Your task to perform on an android device: Show me productivity apps on the Play Store Image 0: 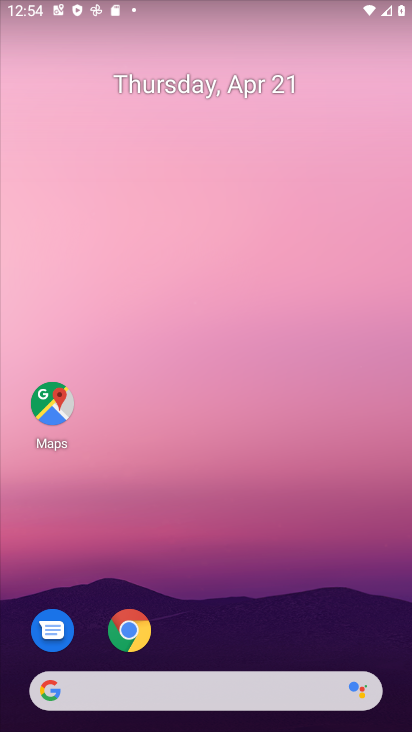
Step 0: drag from (239, 618) to (214, 1)
Your task to perform on an android device: Show me productivity apps on the Play Store Image 1: 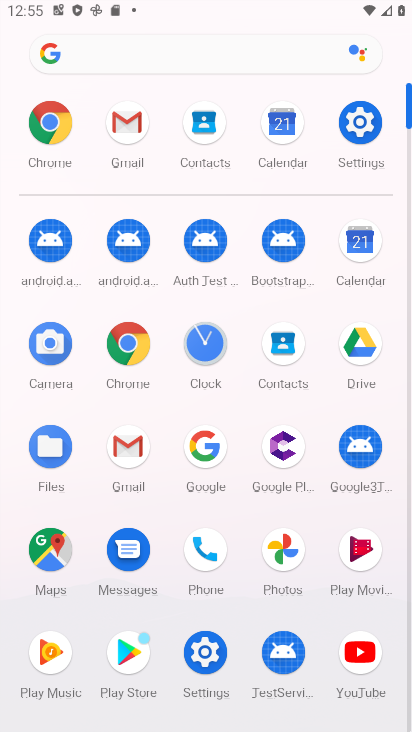
Step 1: click (127, 648)
Your task to perform on an android device: Show me productivity apps on the Play Store Image 2: 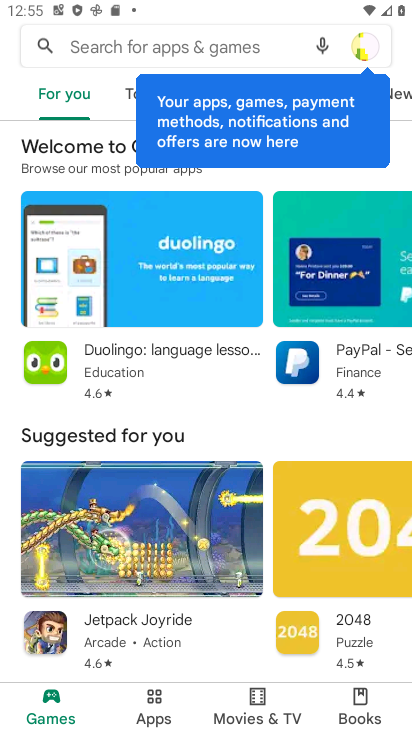
Step 2: click (277, 150)
Your task to perform on an android device: Show me productivity apps on the Play Store Image 3: 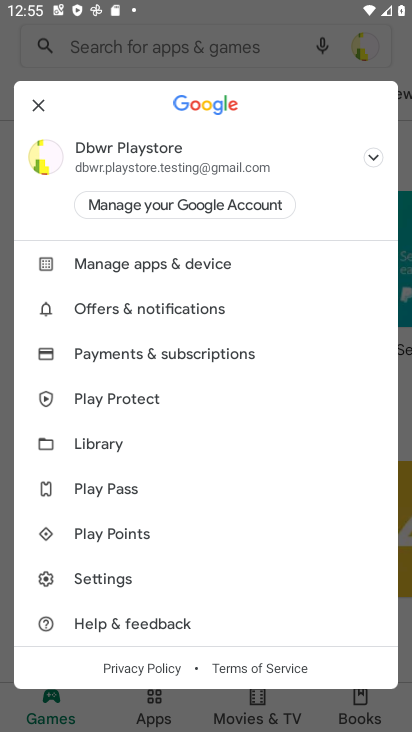
Step 3: click (42, 109)
Your task to perform on an android device: Show me productivity apps on the Play Store Image 4: 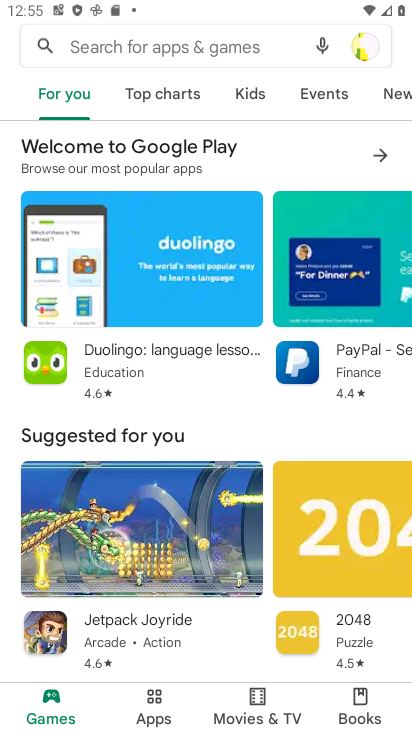
Step 4: click (172, 114)
Your task to perform on an android device: Show me productivity apps on the Play Store Image 5: 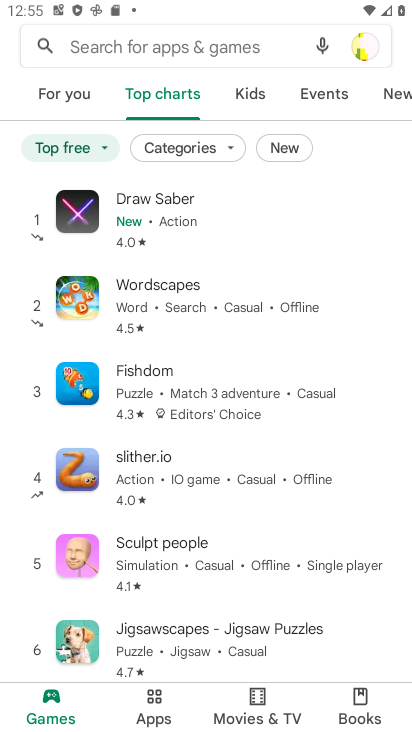
Step 5: click (134, 695)
Your task to perform on an android device: Show me productivity apps on the Play Store Image 6: 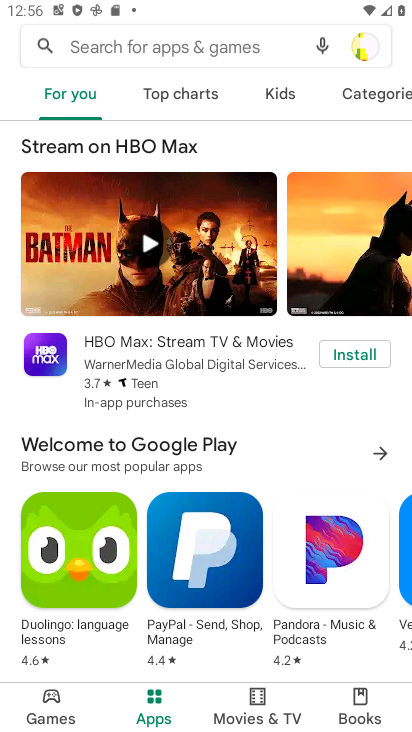
Step 6: click (150, 110)
Your task to perform on an android device: Show me productivity apps on the Play Store Image 7: 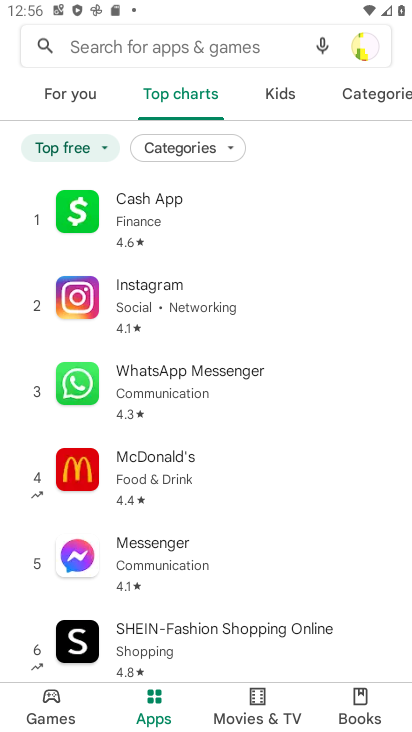
Step 7: click (183, 141)
Your task to perform on an android device: Show me productivity apps on the Play Store Image 8: 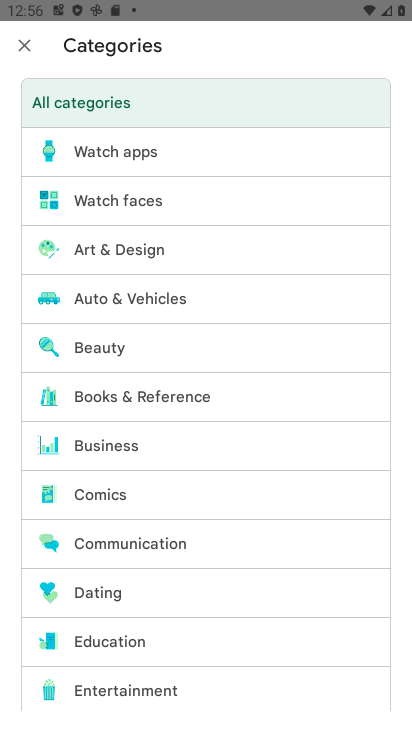
Step 8: drag from (149, 593) to (177, 241)
Your task to perform on an android device: Show me productivity apps on the Play Store Image 9: 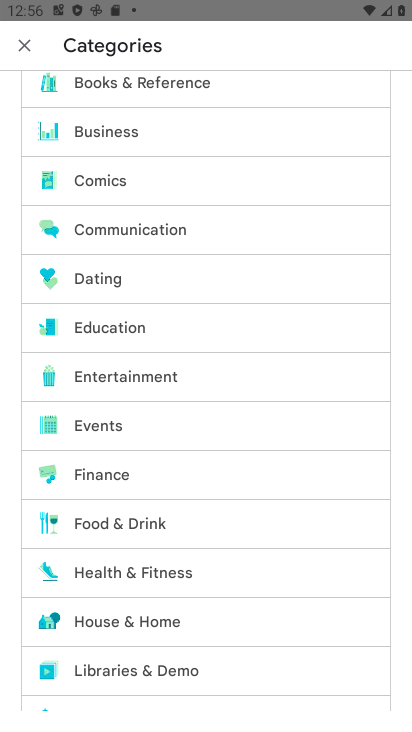
Step 9: drag from (187, 633) to (217, 211)
Your task to perform on an android device: Show me productivity apps on the Play Store Image 10: 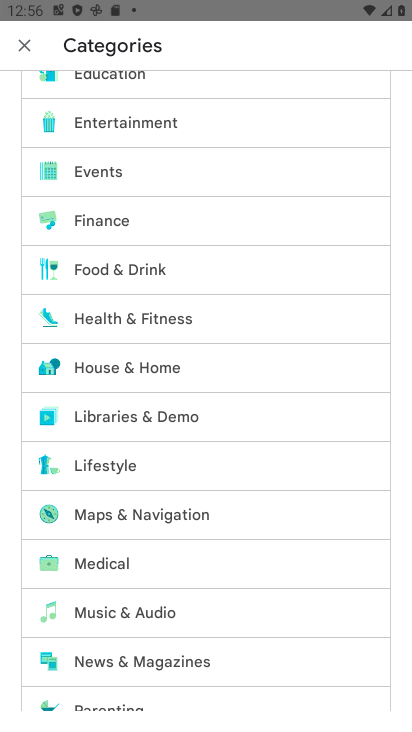
Step 10: drag from (215, 544) to (228, 112)
Your task to perform on an android device: Show me productivity apps on the Play Store Image 11: 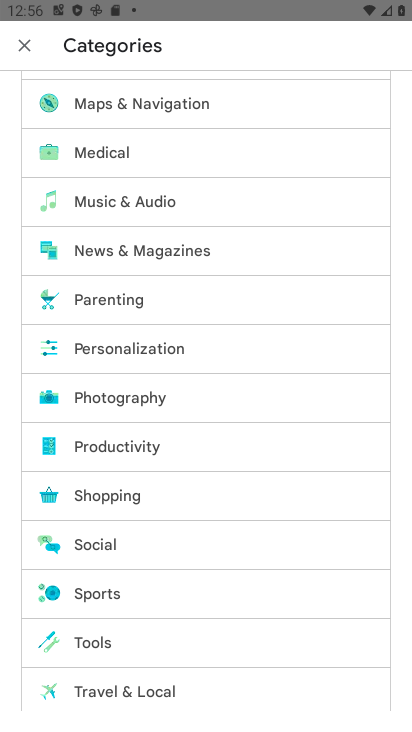
Step 11: click (222, 437)
Your task to perform on an android device: Show me productivity apps on the Play Store Image 12: 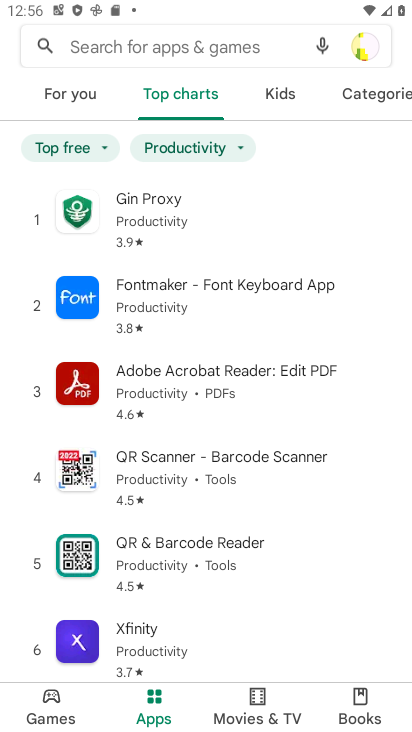
Step 12: task complete